Your task to perform on an android device: Search for vegetarian restaurants on Maps Image 0: 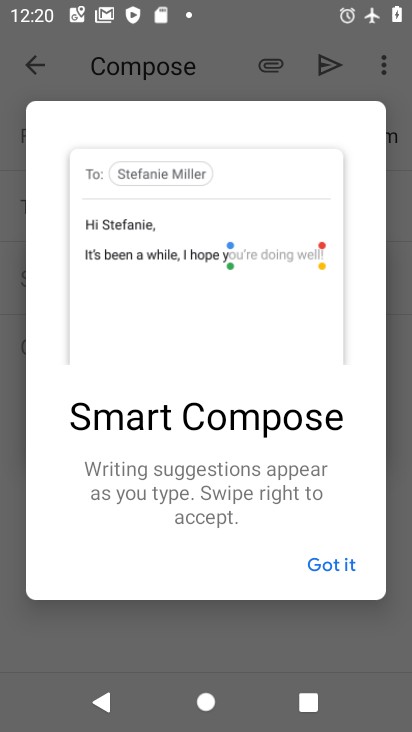
Step 0: press home button
Your task to perform on an android device: Search for vegetarian restaurants on Maps Image 1: 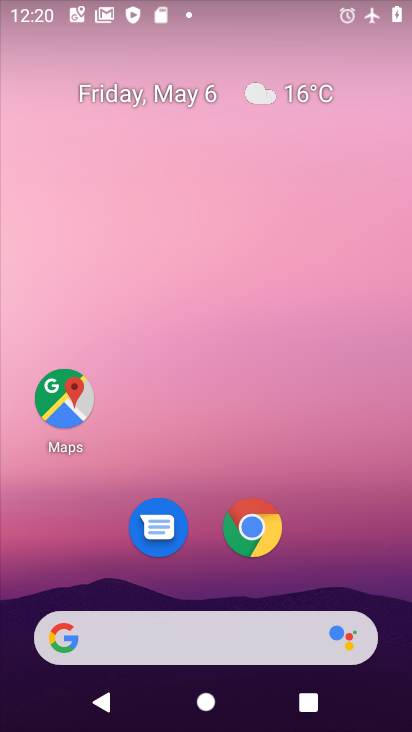
Step 1: click (62, 387)
Your task to perform on an android device: Search for vegetarian restaurants on Maps Image 2: 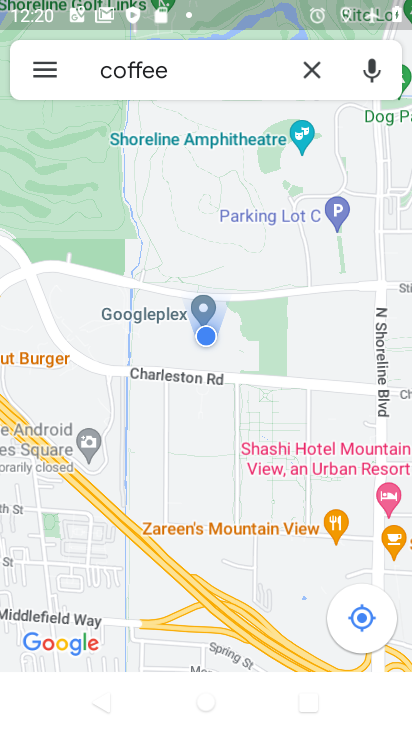
Step 2: click (308, 69)
Your task to perform on an android device: Search for vegetarian restaurants on Maps Image 3: 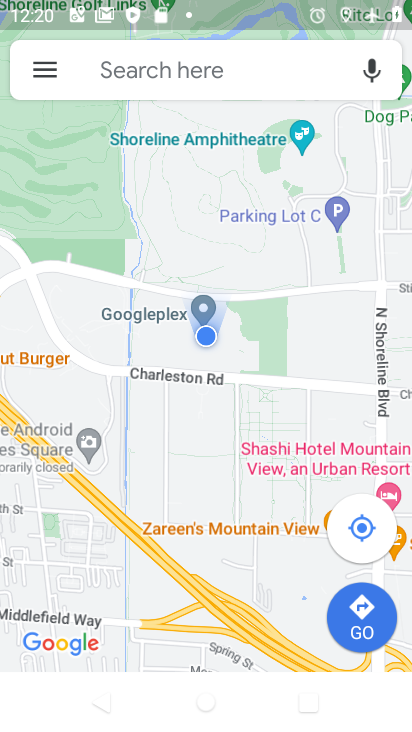
Step 3: click (151, 76)
Your task to perform on an android device: Search for vegetarian restaurants on Maps Image 4: 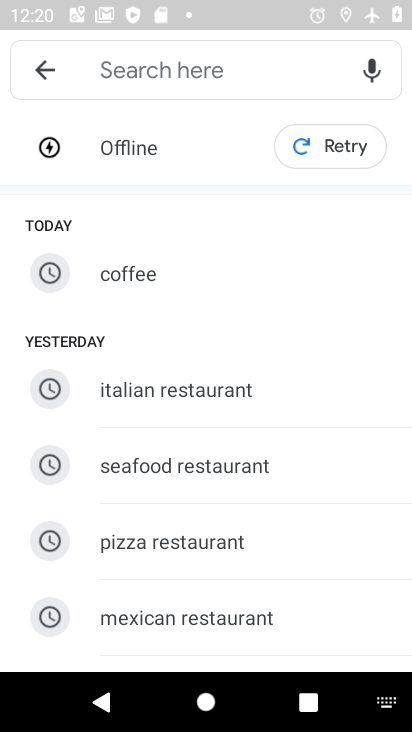
Step 4: type "vegetarian"
Your task to perform on an android device: Search for vegetarian restaurants on Maps Image 5: 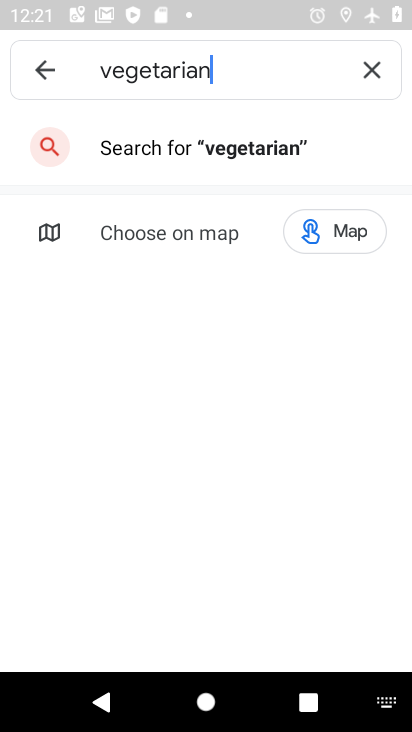
Step 5: type " restaurants"
Your task to perform on an android device: Search for vegetarian restaurants on Maps Image 6: 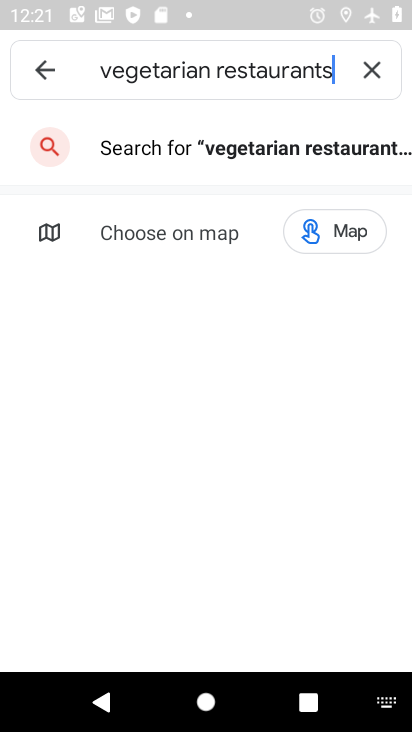
Step 6: click (264, 146)
Your task to perform on an android device: Search for vegetarian restaurants on Maps Image 7: 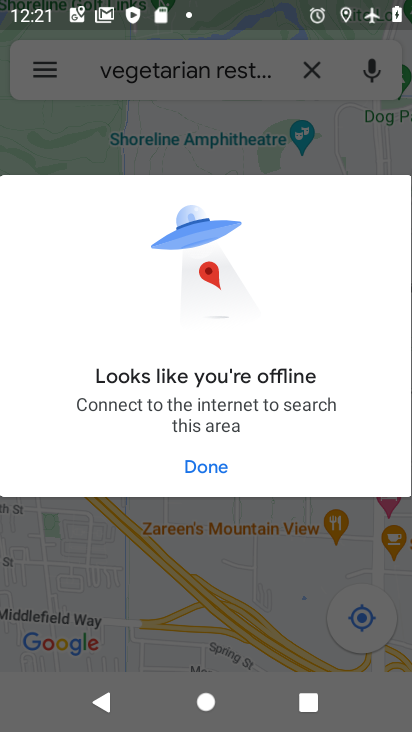
Step 7: click (209, 465)
Your task to perform on an android device: Search for vegetarian restaurants on Maps Image 8: 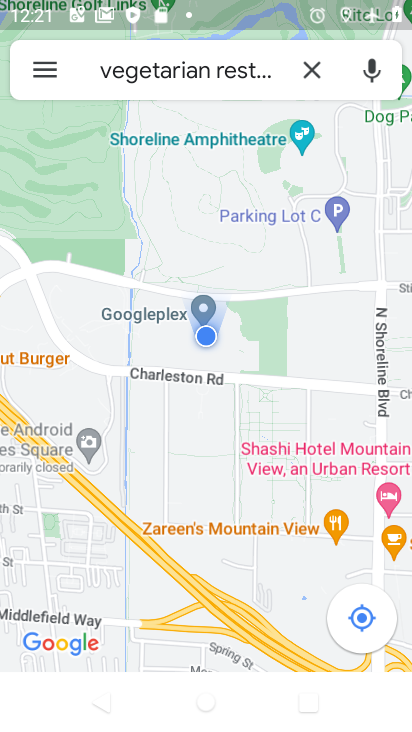
Step 8: task complete